Your task to perform on an android device: delete a single message in the gmail app Image 0: 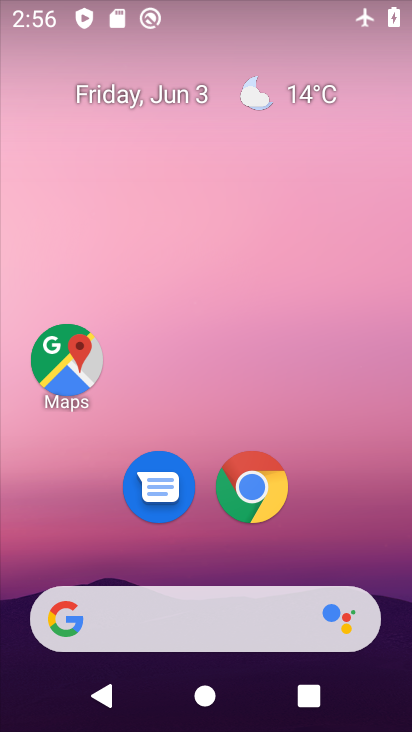
Step 0: drag from (182, 557) to (274, 27)
Your task to perform on an android device: delete a single message in the gmail app Image 1: 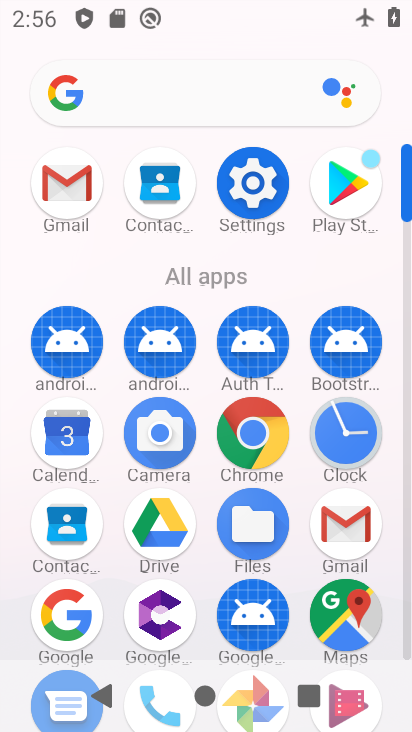
Step 1: click (78, 181)
Your task to perform on an android device: delete a single message in the gmail app Image 2: 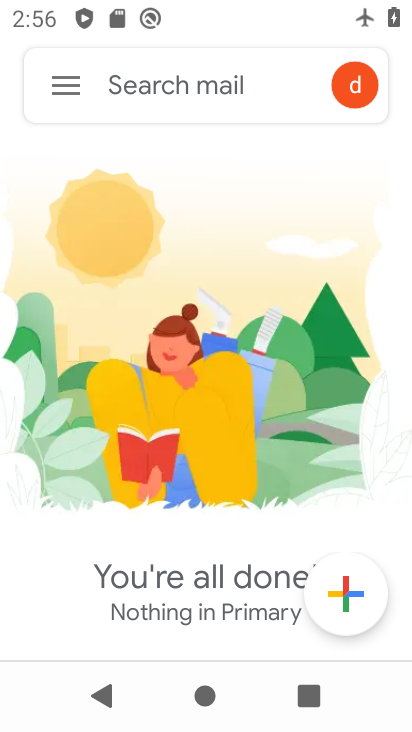
Step 2: click (71, 81)
Your task to perform on an android device: delete a single message in the gmail app Image 3: 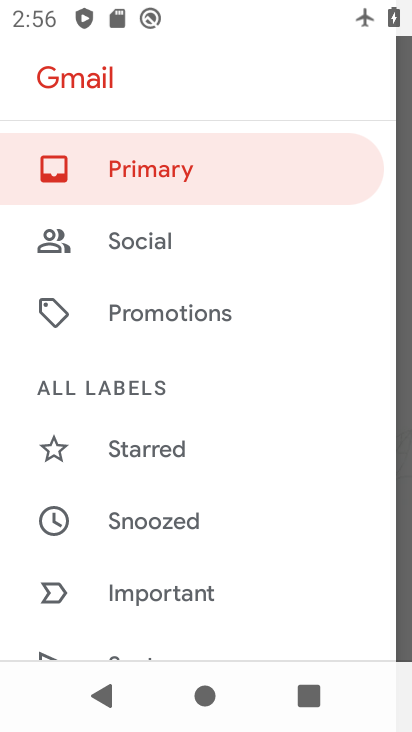
Step 3: drag from (163, 564) to (205, 28)
Your task to perform on an android device: delete a single message in the gmail app Image 4: 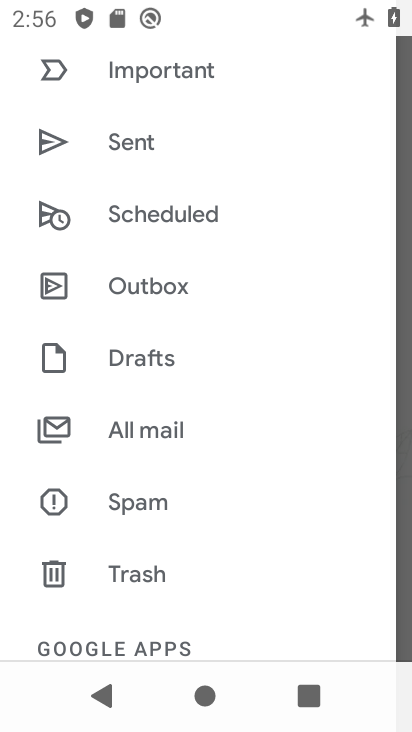
Step 4: drag from (162, 583) to (189, 198)
Your task to perform on an android device: delete a single message in the gmail app Image 5: 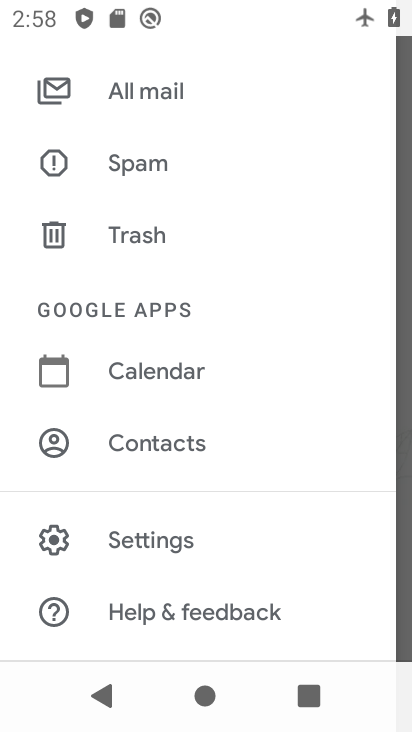
Step 5: click (157, 84)
Your task to perform on an android device: delete a single message in the gmail app Image 6: 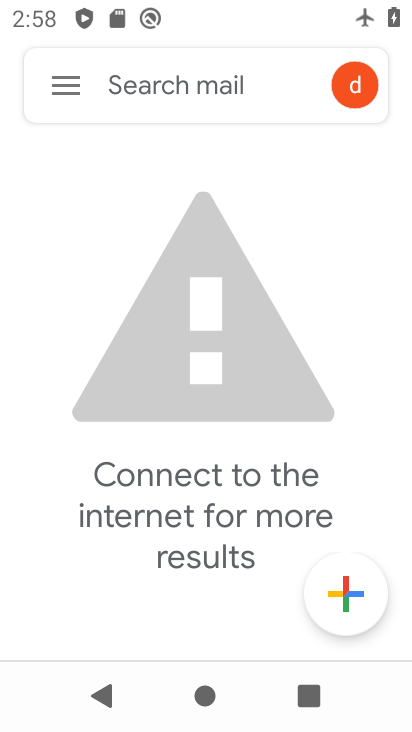
Step 6: drag from (362, 10) to (268, 585)
Your task to perform on an android device: delete a single message in the gmail app Image 7: 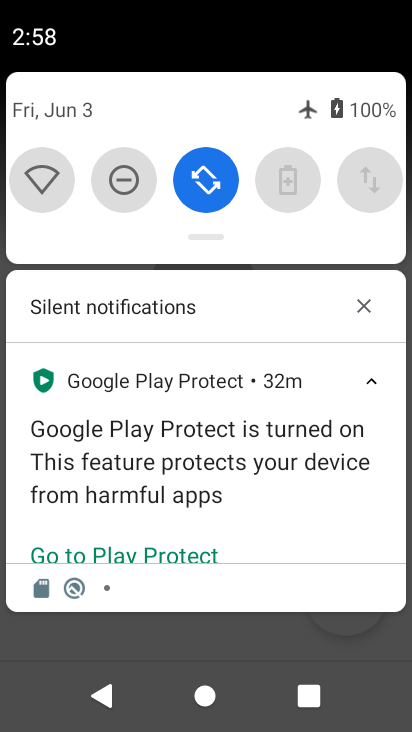
Step 7: drag from (219, 230) to (203, 619)
Your task to perform on an android device: delete a single message in the gmail app Image 8: 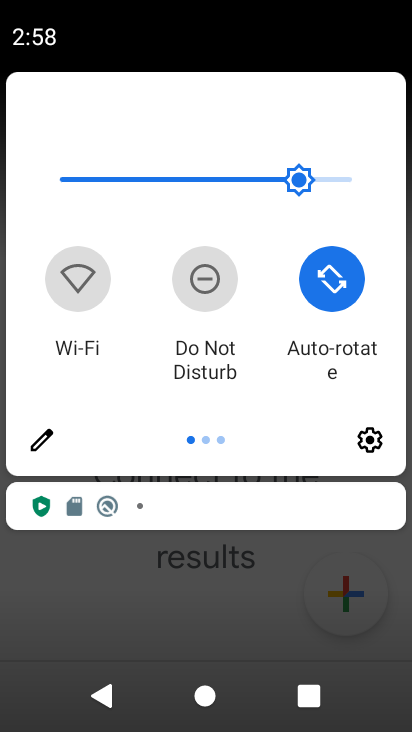
Step 8: drag from (339, 284) to (24, 294)
Your task to perform on an android device: delete a single message in the gmail app Image 9: 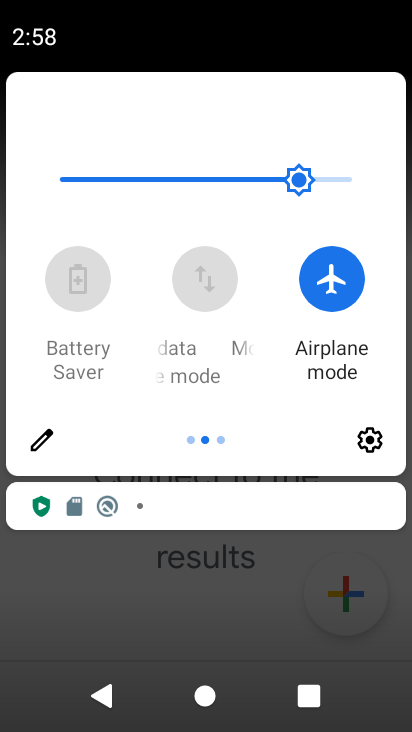
Step 9: click (306, 289)
Your task to perform on an android device: delete a single message in the gmail app Image 10: 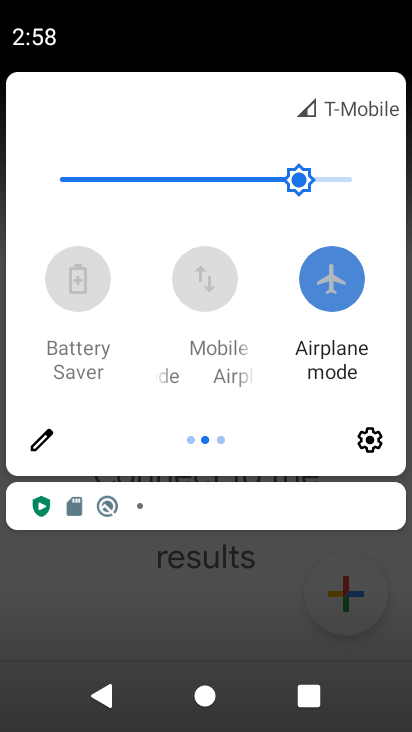
Step 10: click (214, 596)
Your task to perform on an android device: delete a single message in the gmail app Image 11: 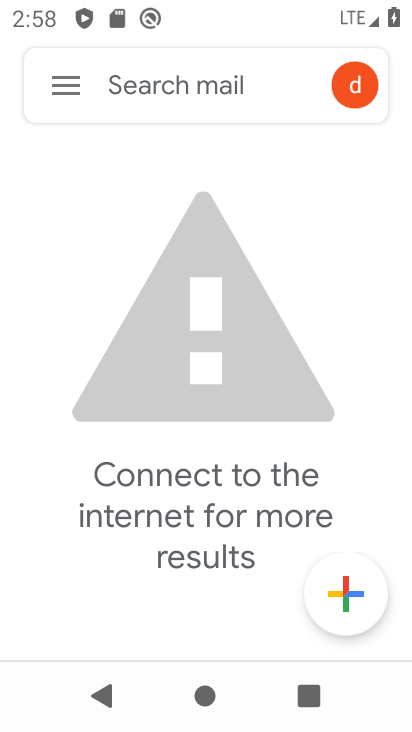
Step 11: task complete